Your task to perform on an android device: turn off sleep mode Image 0: 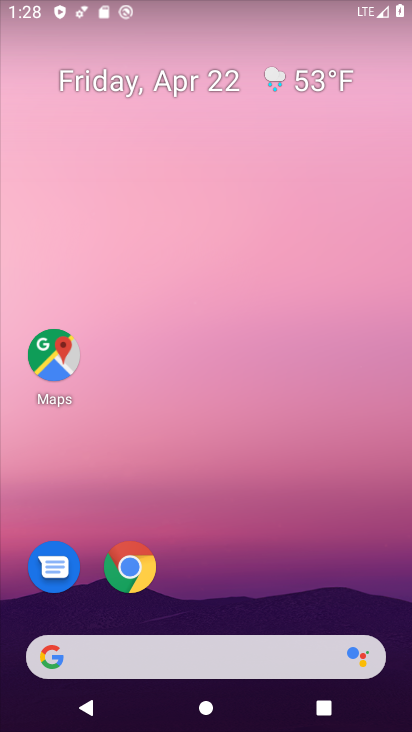
Step 0: drag from (375, 604) to (242, 136)
Your task to perform on an android device: turn off sleep mode Image 1: 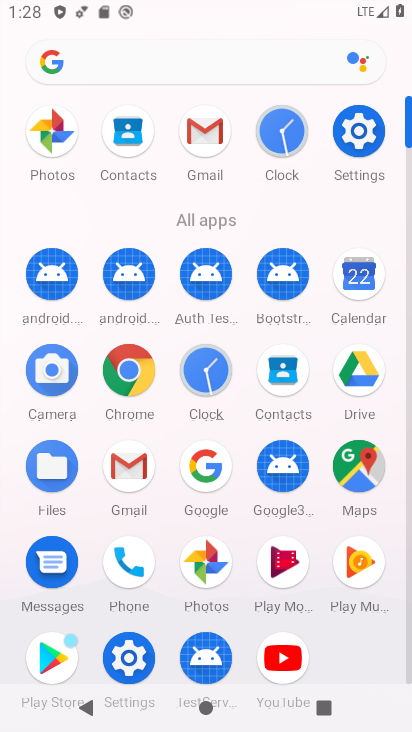
Step 1: click (130, 662)
Your task to perform on an android device: turn off sleep mode Image 2: 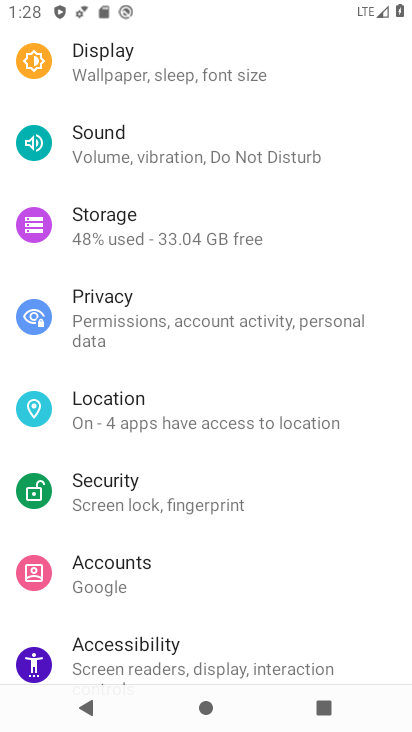
Step 2: drag from (321, 275) to (289, 533)
Your task to perform on an android device: turn off sleep mode Image 3: 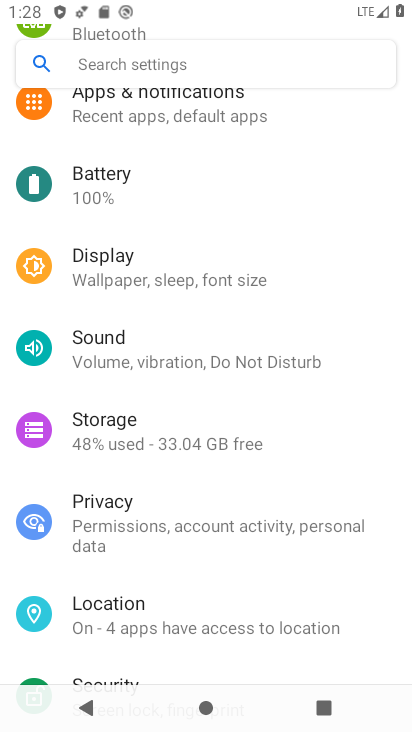
Step 3: click (137, 272)
Your task to perform on an android device: turn off sleep mode Image 4: 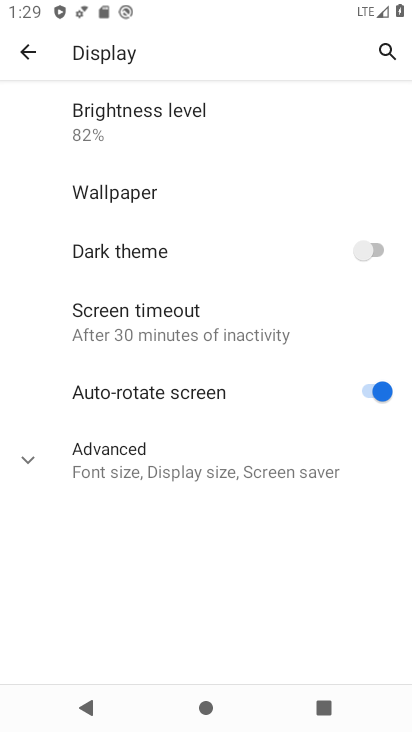
Step 4: click (38, 462)
Your task to perform on an android device: turn off sleep mode Image 5: 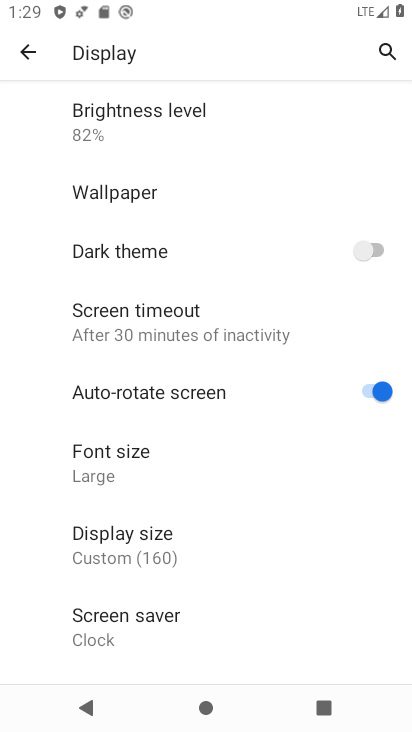
Step 5: task complete